Your task to perform on an android device: toggle translation in the chrome app Image 0: 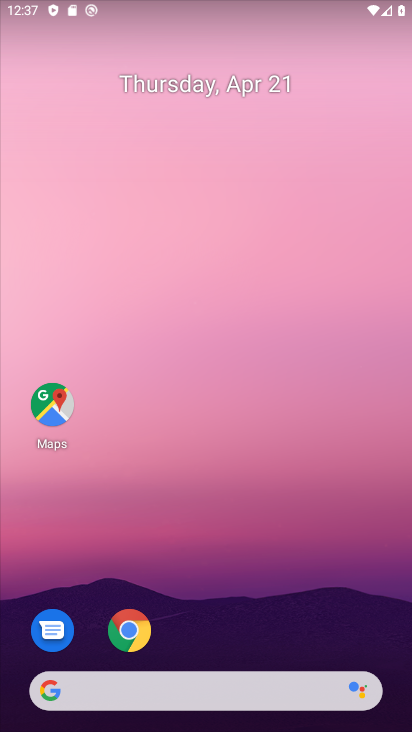
Step 0: click (131, 628)
Your task to perform on an android device: toggle translation in the chrome app Image 1: 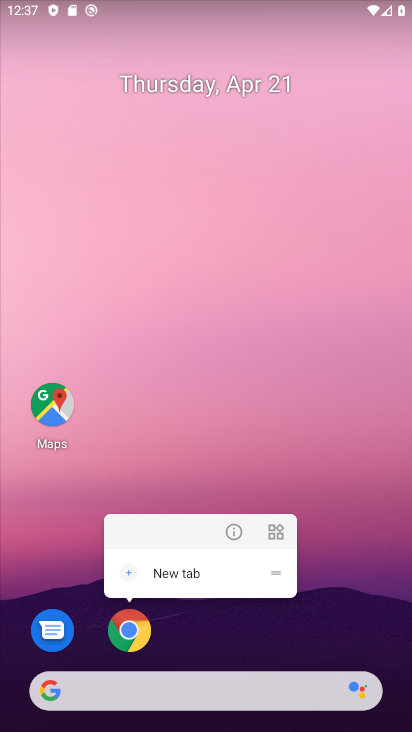
Step 1: click (131, 628)
Your task to perform on an android device: toggle translation in the chrome app Image 2: 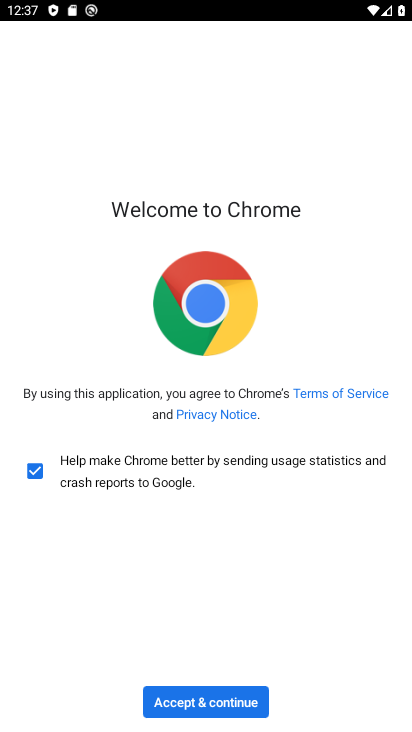
Step 2: click (218, 706)
Your task to perform on an android device: toggle translation in the chrome app Image 3: 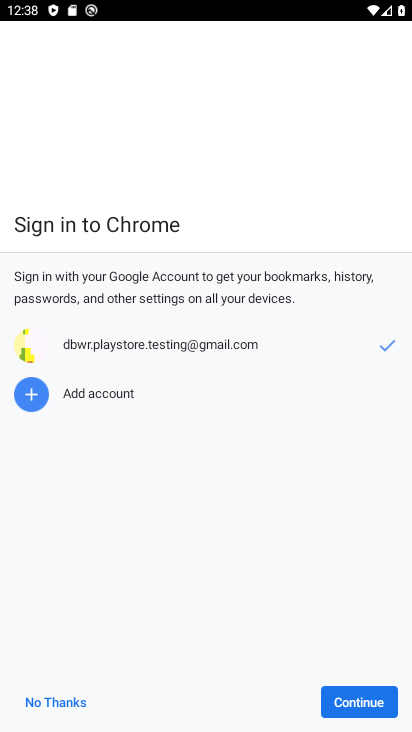
Step 3: click (365, 699)
Your task to perform on an android device: toggle translation in the chrome app Image 4: 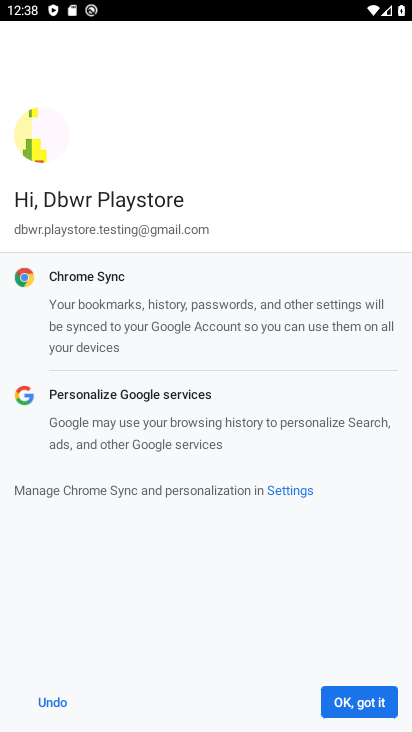
Step 4: click (365, 699)
Your task to perform on an android device: toggle translation in the chrome app Image 5: 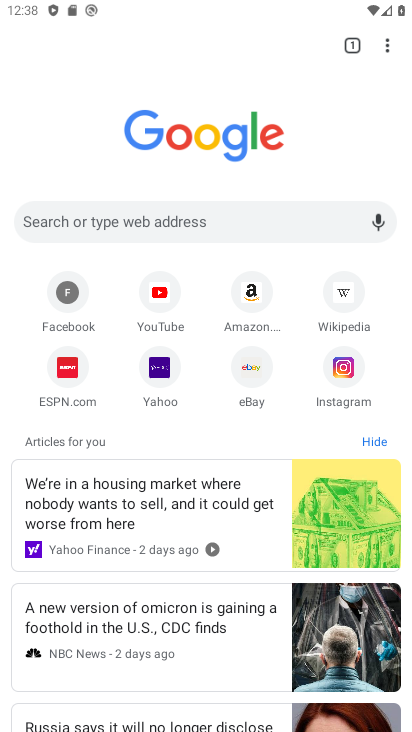
Step 5: drag from (391, 40) to (244, 389)
Your task to perform on an android device: toggle translation in the chrome app Image 6: 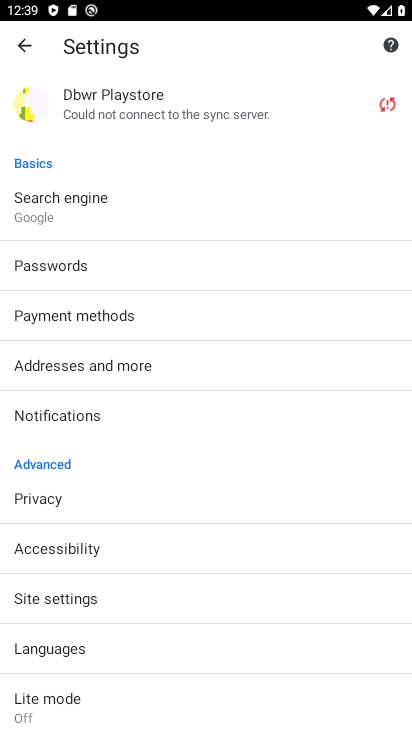
Step 6: click (75, 656)
Your task to perform on an android device: toggle translation in the chrome app Image 7: 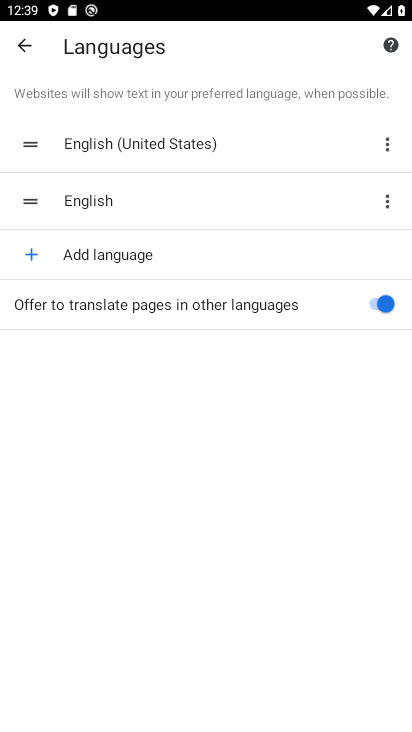
Step 7: click (383, 309)
Your task to perform on an android device: toggle translation in the chrome app Image 8: 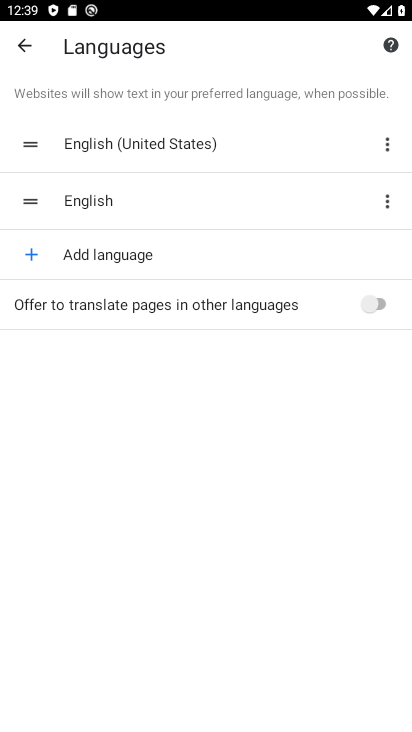
Step 8: task complete